Your task to perform on an android device: empty trash in google photos Image 0: 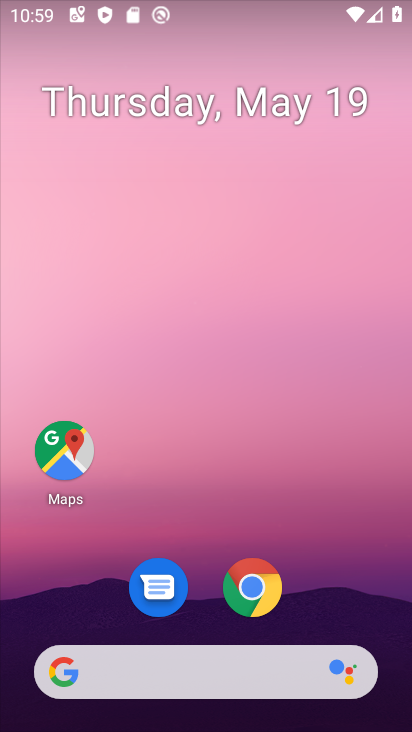
Step 0: drag from (177, 660) to (186, 41)
Your task to perform on an android device: empty trash in google photos Image 1: 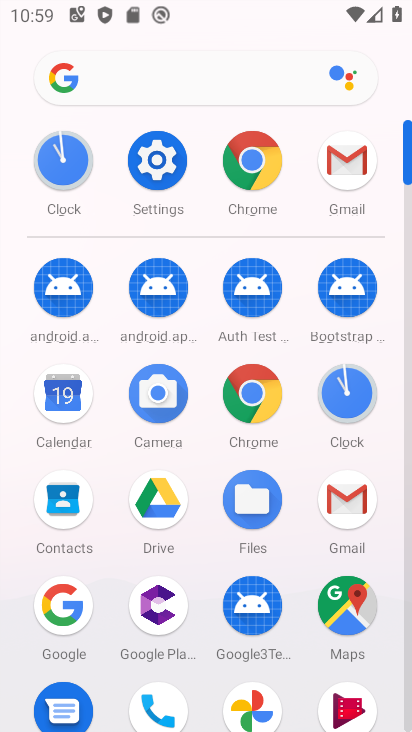
Step 1: click (238, 703)
Your task to perform on an android device: empty trash in google photos Image 2: 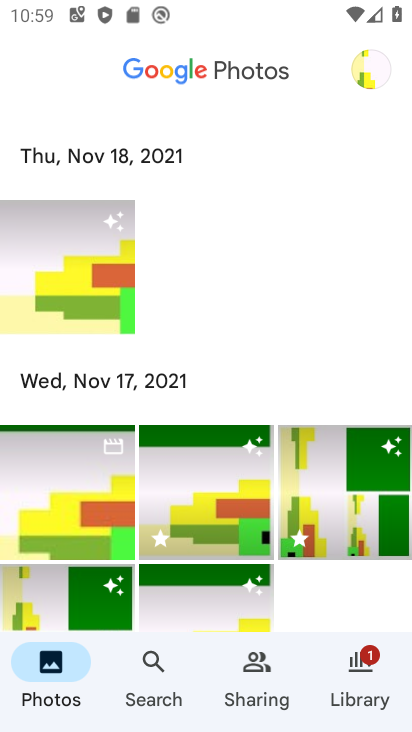
Step 2: click (376, 671)
Your task to perform on an android device: empty trash in google photos Image 3: 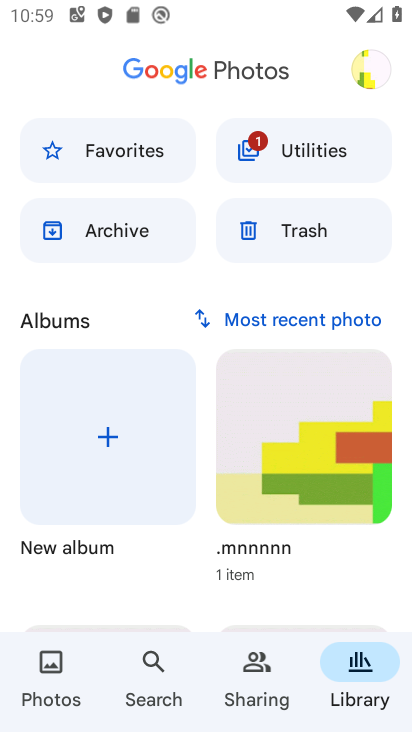
Step 3: click (307, 247)
Your task to perform on an android device: empty trash in google photos Image 4: 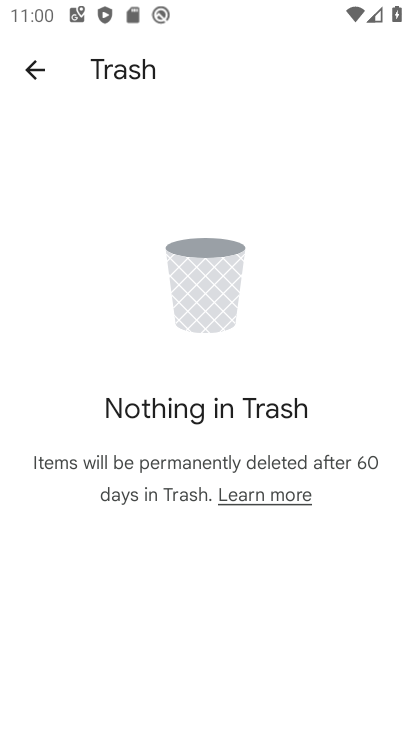
Step 4: task complete